Your task to perform on an android device: Go to Google Image 0: 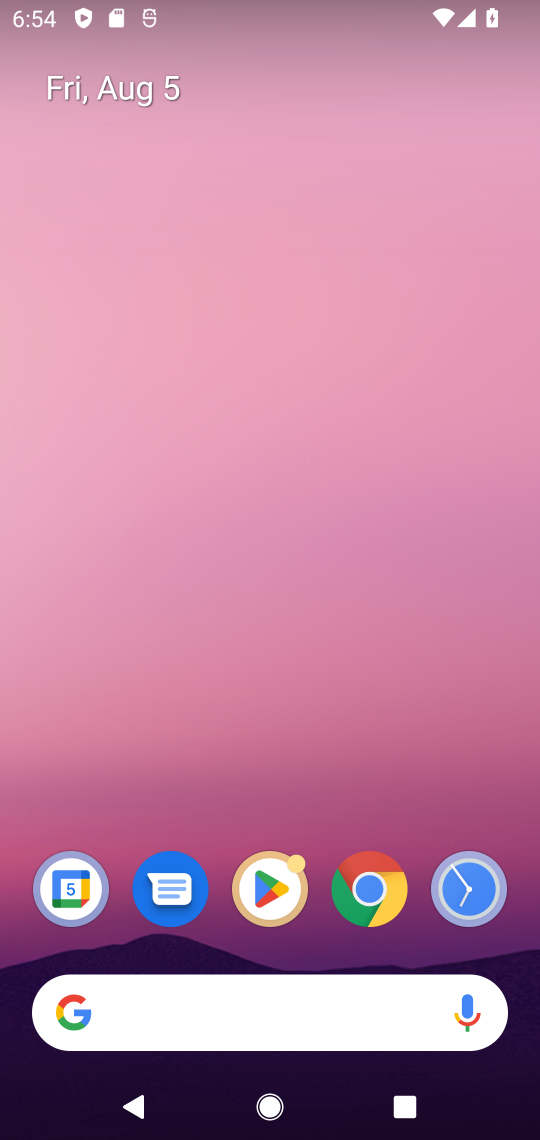
Step 0: drag from (272, 651) to (272, 362)
Your task to perform on an android device: Go to Google Image 1: 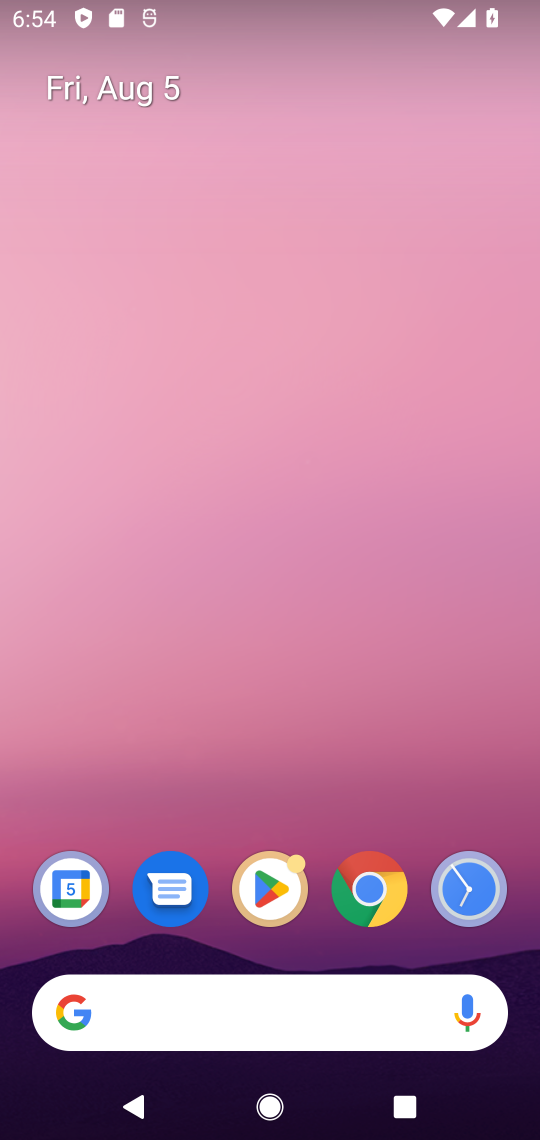
Step 1: drag from (243, 952) to (265, 604)
Your task to perform on an android device: Go to Google Image 2: 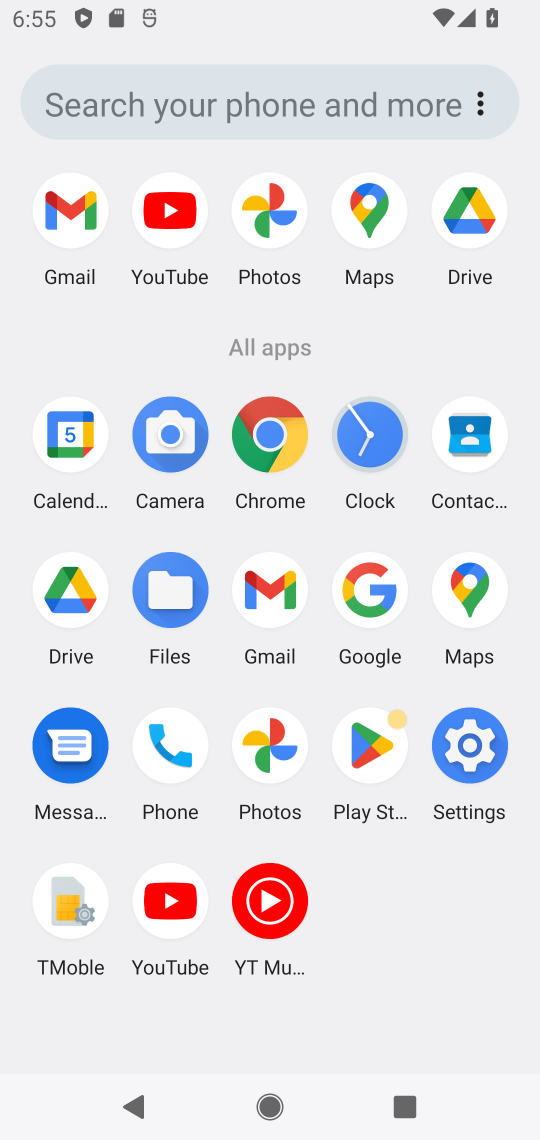
Step 2: click (353, 599)
Your task to perform on an android device: Go to Google Image 3: 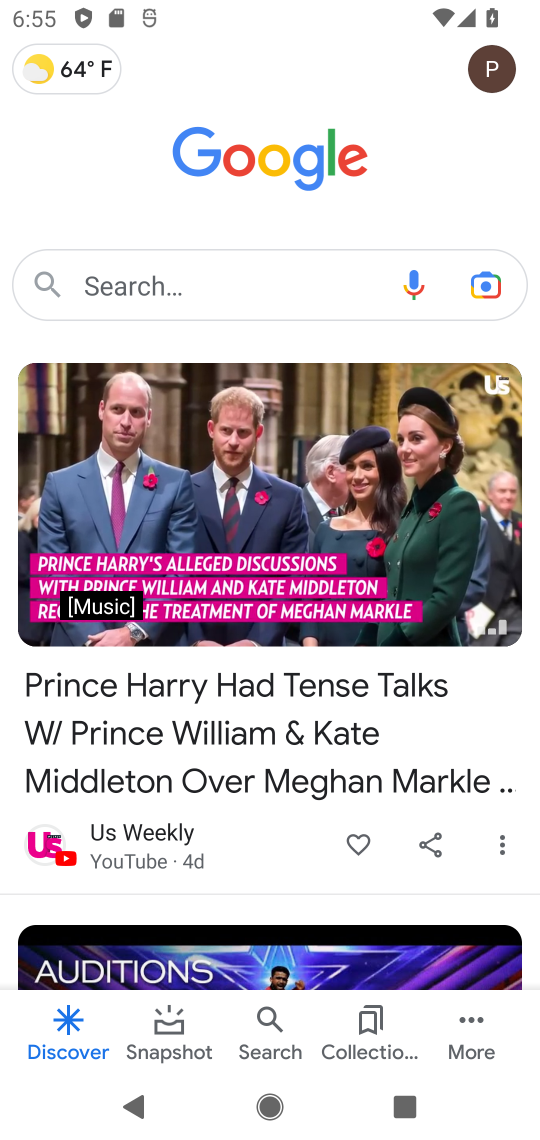
Step 3: task complete